Your task to perform on an android device: turn on priority inbox in the gmail app Image 0: 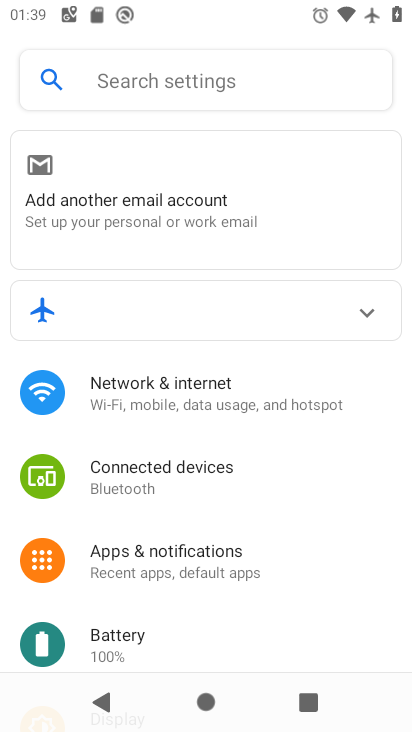
Step 0: press home button
Your task to perform on an android device: turn on priority inbox in the gmail app Image 1: 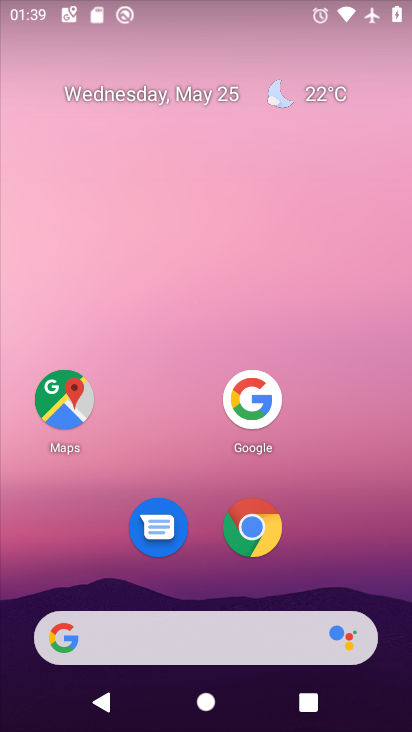
Step 1: drag from (156, 634) to (291, 140)
Your task to perform on an android device: turn on priority inbox in the gmail app Image 2: 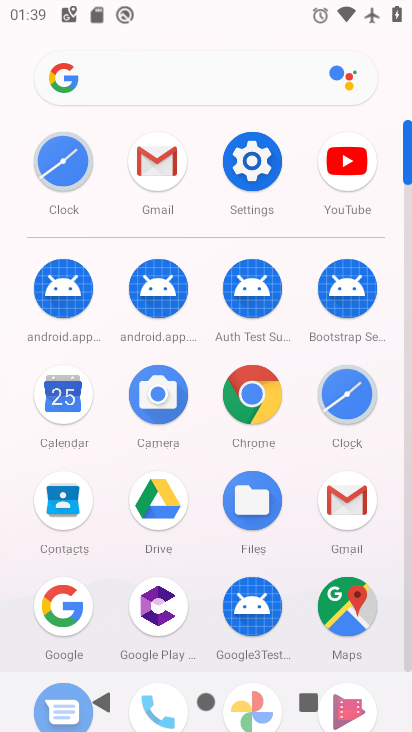
Step 2: click (150, 171)
Your task to perform on an android device: turn on priority inbox in the gmail app Image 3: 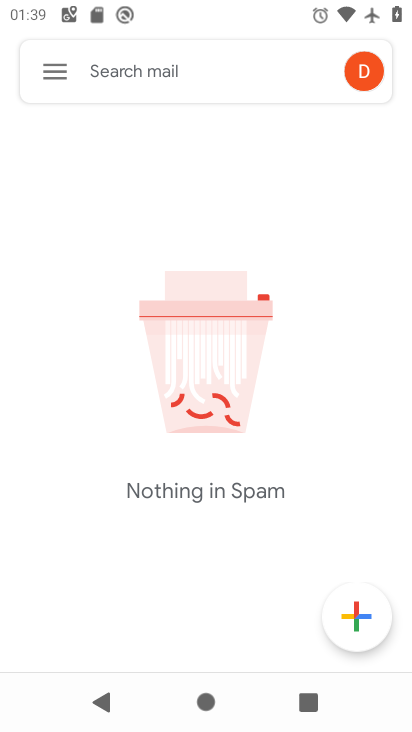
Step 3: click (53, 70)
Your task to perform on an android device: turn on priority inbox in the gmail app Image 4: 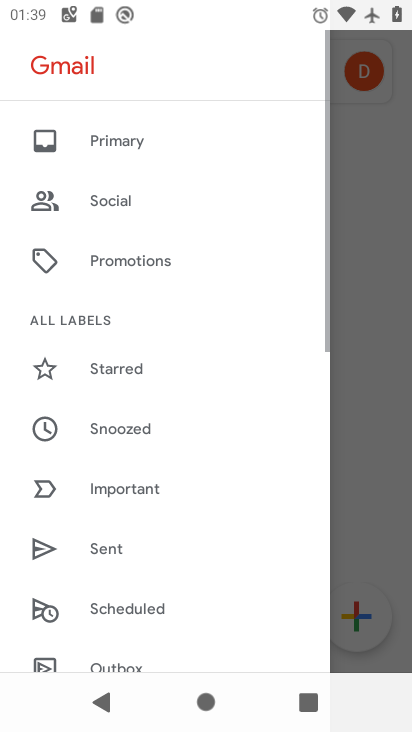
Step 4: drag from (187, 606) to (281, 101)
Your task to perform on an android device: turn on priority inbox in the gmail app Image 5: 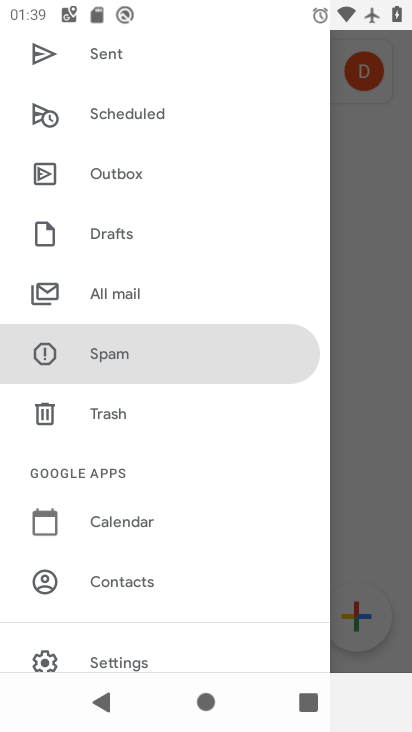
Step 5: drag from (144, 607) to (274, 142)
Your task to perform on an android device: turn on priority inbox in the gmail app Image 6: 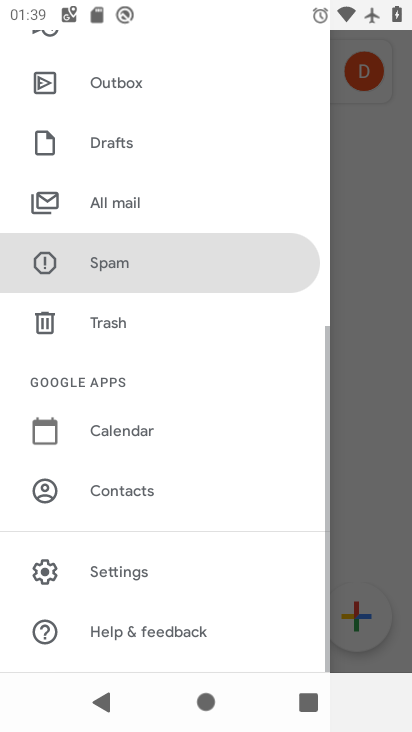
Step 6: click (130, 574)
Your task to perform on an android device: turn on priority inbox in the gmail app Image 7: 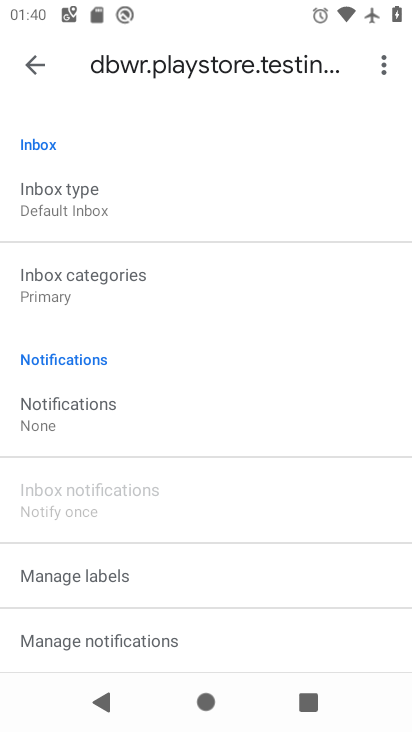
Step 7: click (85, 198)
Your task to perform on an android device: turn on priority inbox in the gmail app Image 8: 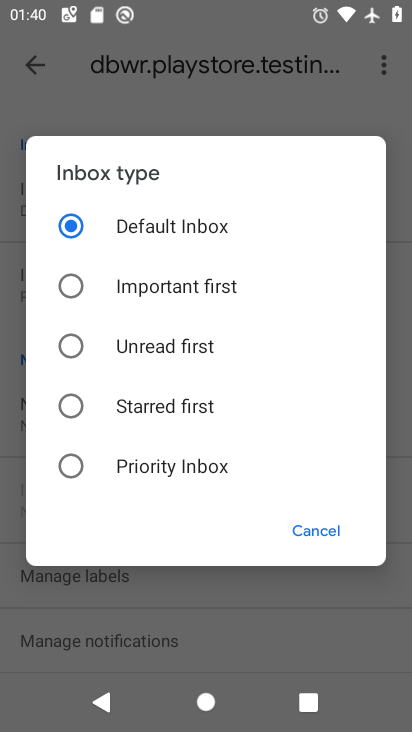
Step 8: click (74, 467)
Your task to perform on an android device: turn on priority inbox in the gmail app Image 9: 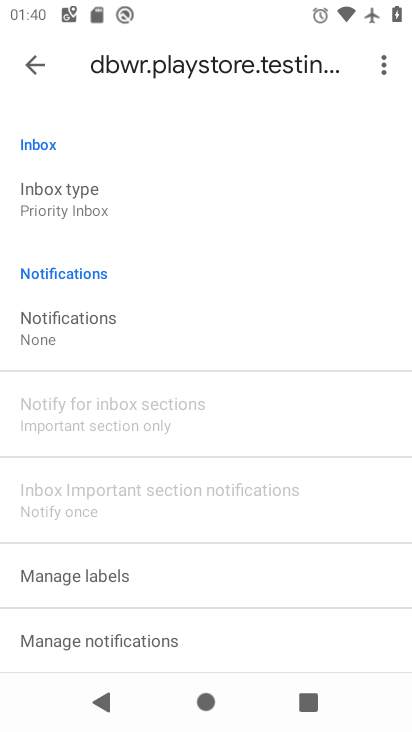
Step 9: task complete